Your task to perform on an android device: What's the weather today? Image 0: 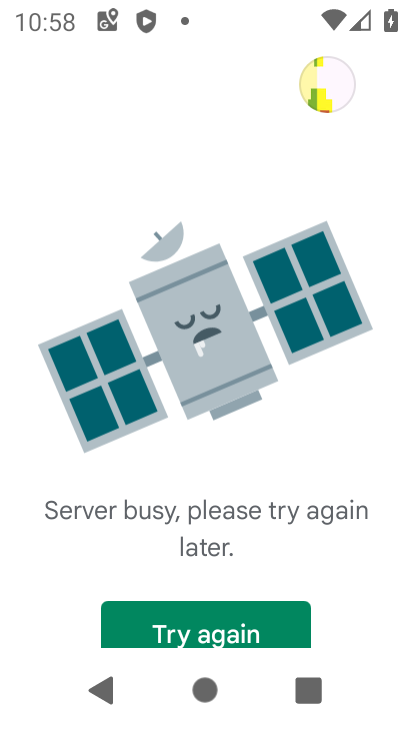
Step 0: press home button
Your task to perform on an android device: What's the weather today? Image 1: 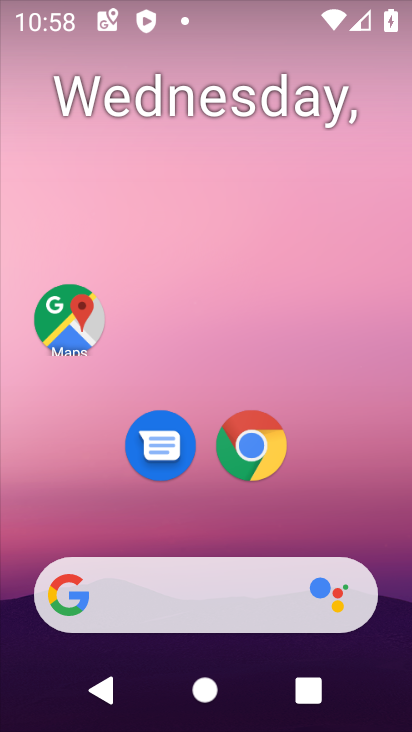
Step 1: click (158, 580)
Your task to perform on an android device: What's the weather today? Image 2: 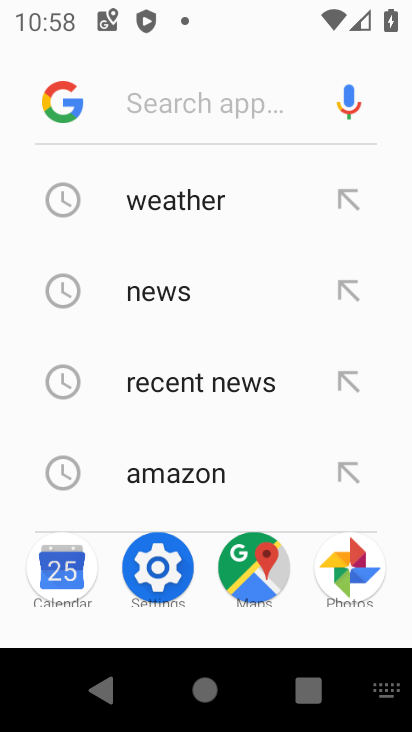
Step 2: click (159, 207)
Your task to perform on an android device: What's the weather today? Image 3: 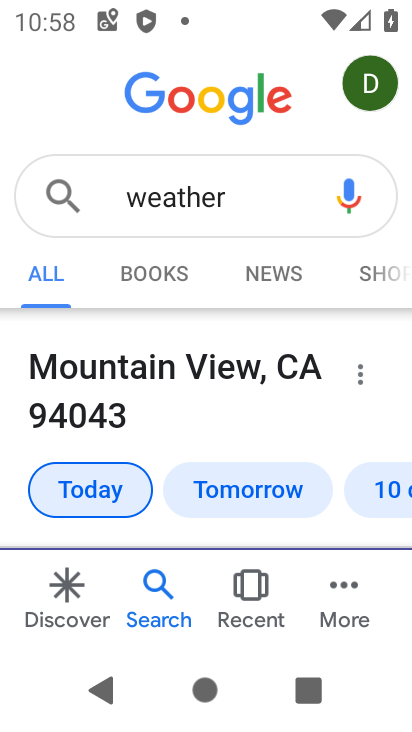
Step 3: click (81, 502)
Your task to perform on an android device: What's the weather today? Image 4: 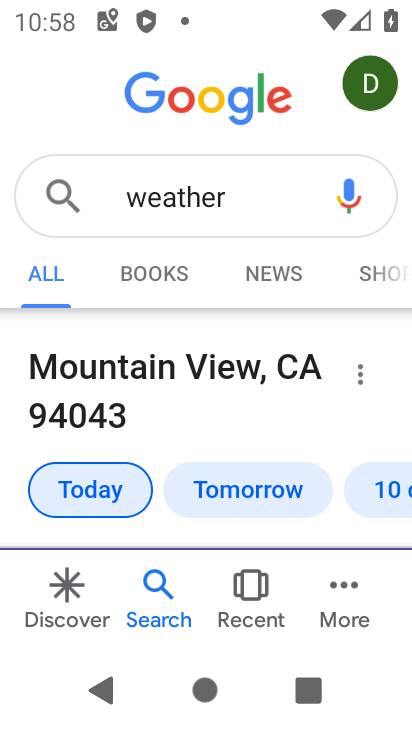
Step 4: task complete